Your task to perform on an android device: Go to wifi settings Image 0: 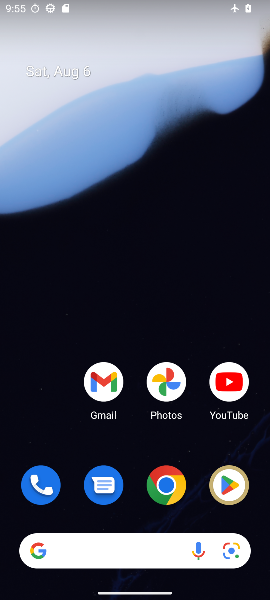
Step 0: drag from (141, 445) to (148, 54)
Your task to perform on an android device: Go to wifi settings Image 1: 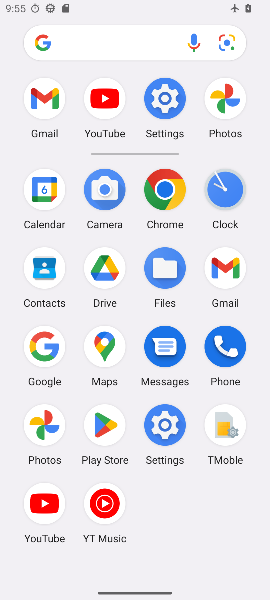
Step 1: click (155, 427)
Your task to perform on an android device: Go to wifi settings Image 2: 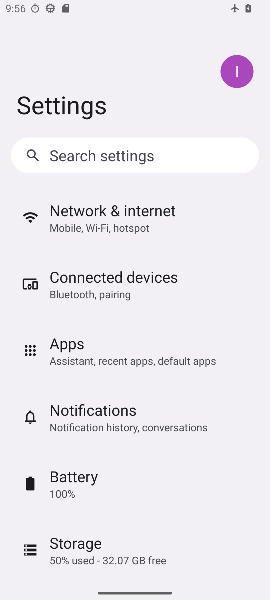
Step 2: click (88, 222)
Your task to perform on an android device: Go to wifi settings Image 3: 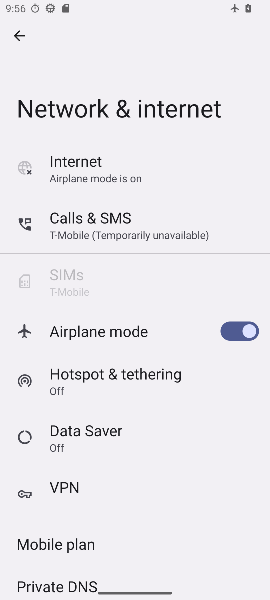
Step 3: drag from (129, 493) to (143, 528)
Your task to perform on an android device: Go to wifi settings Image 4: 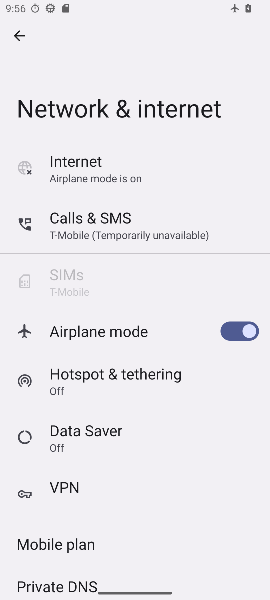
Step 4: click (21, 34)
Your task to perform on an android device: Go to wifi settings Image 5: 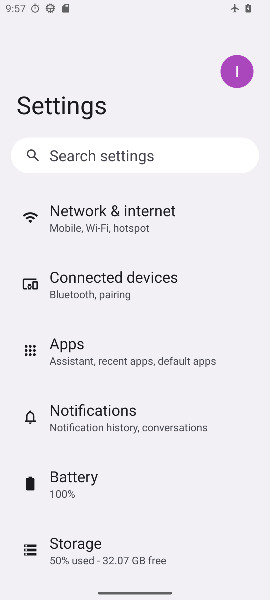
Step 5: click (109, 205)
Your task to perform on an android device: Go to wifi settings Image 6: 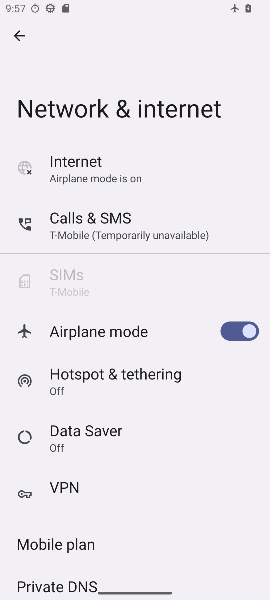
Step 6: task complete